Your task to perform on an android device: turn on the 24-hour format for clock Image 0: 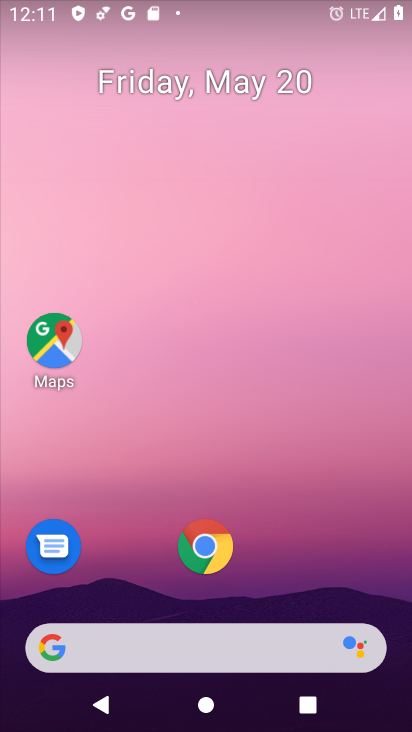
Step 0: drag from (334, 449) to (325, 101)
Your task to perform on an android device: turn on the 24-hour format for clock Image 1: 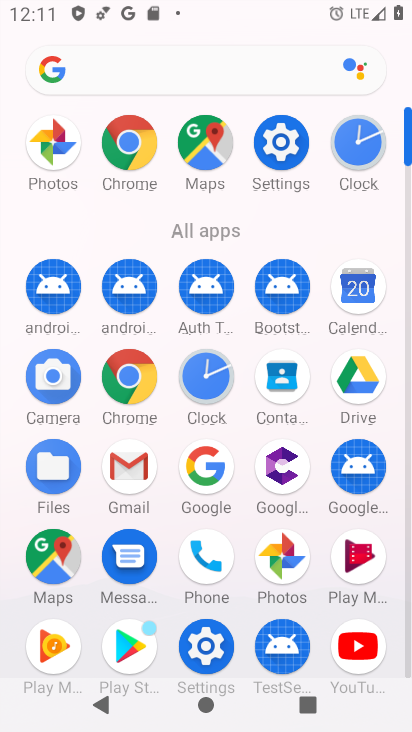
Step 1: click (370, 133)
Your task to perform on an android device: turn on the 24-hour format for clock Image 2: 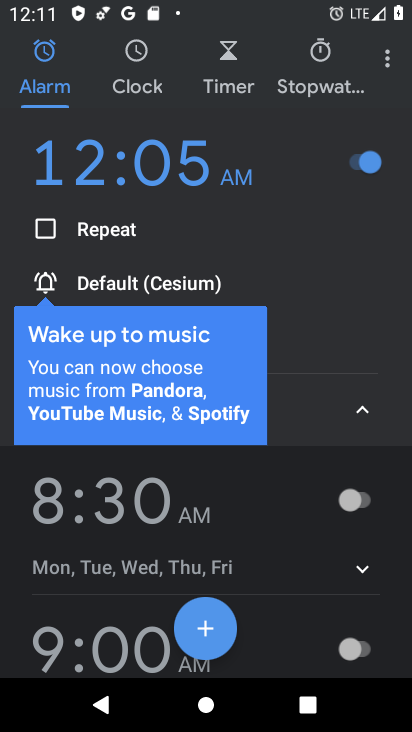
Step 2: click (376, 57)
Your task to perform on an android device: turn on the 24-hour format for clock Image 3: 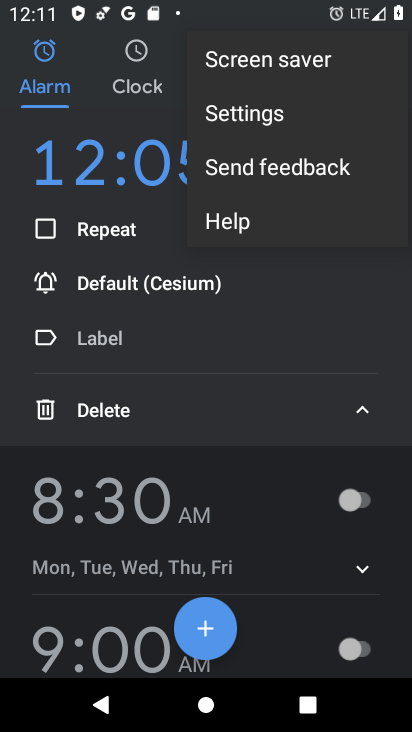
Step 3: click (259, 121)
Your task to perform on an android device: turn on the 24-hour format for clock Image 4: 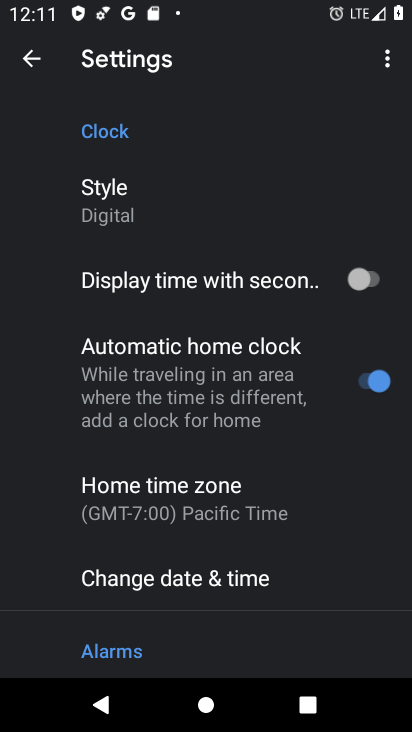
Step 4: click (228, 574)
Your task to perform on an android device: turn on the 24-hour format for clock Image 5: 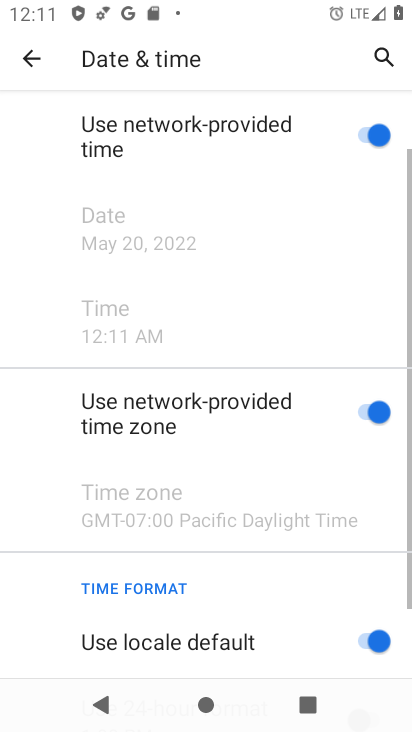
Step 5: drag from (227, 572) to (252, 114)
Your task to perform on an android device: turn on the 24-hour format for clock Image 6: 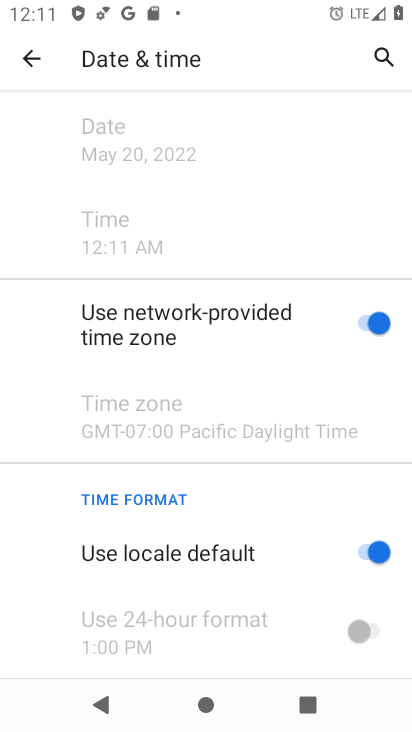
Step 6: click (368, 548)
Your task to perform on an android device: turn on the 24-hour format for clock Image 7: 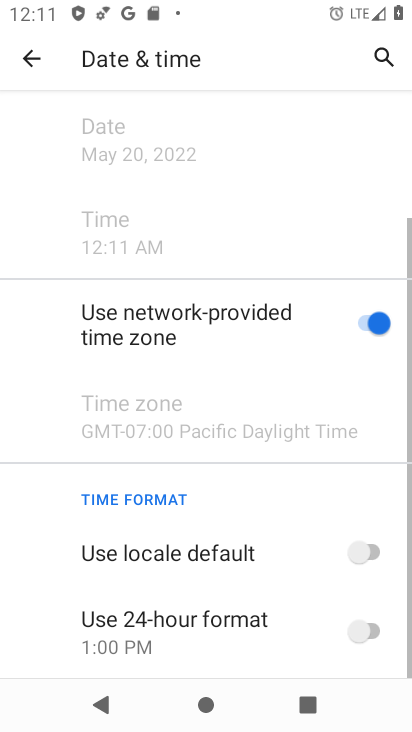
Step 7: click (358, 633)
Your task to perform on an android device: turn on the 24-hour format for clock Image 8: 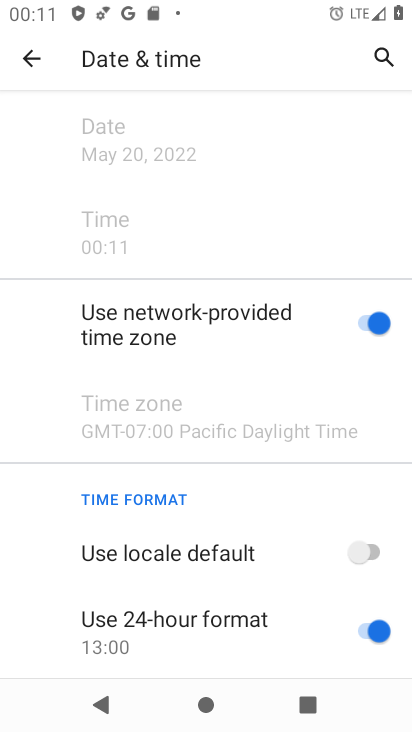
Step 8: task complete